Your task to perform on an android device: move an email to a new category in the gmail app Image 0: 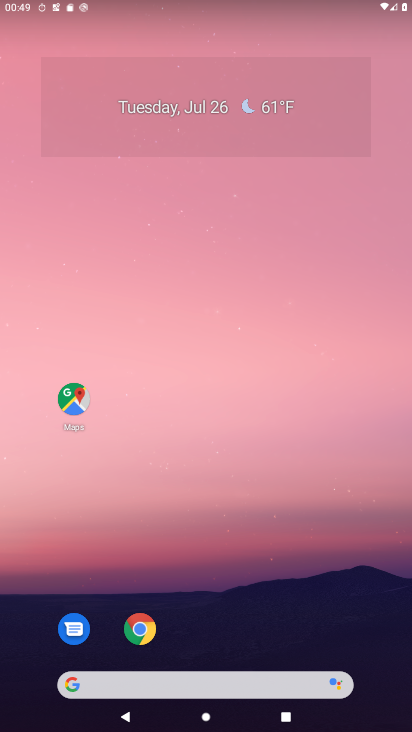
Step 0: drag from (196, 631) to (230, 9)
Your task to perform on an android device: move an email to a new category in the gmail app Image 1: 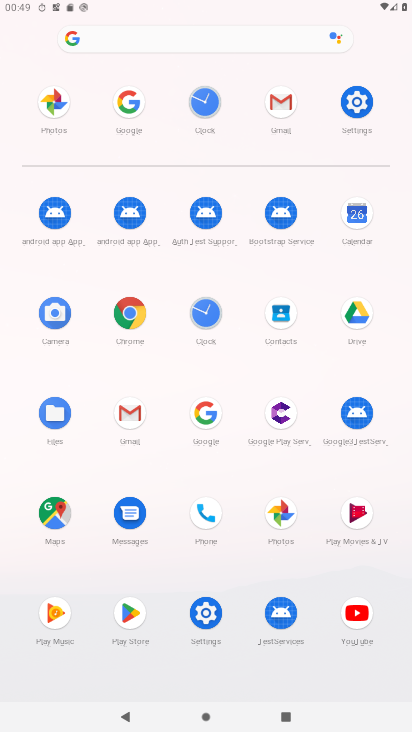
Step 1: click (283, 157)
Your task to perform on an android device: move an email to a new category in the gmail app Image 2: 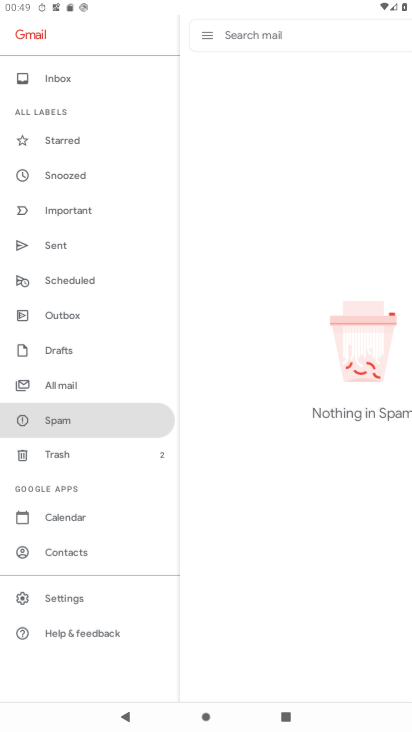
Step 2: click (283, 132)
Your task to perform on an android device: move an email to a new category in the gmail app Image 3: 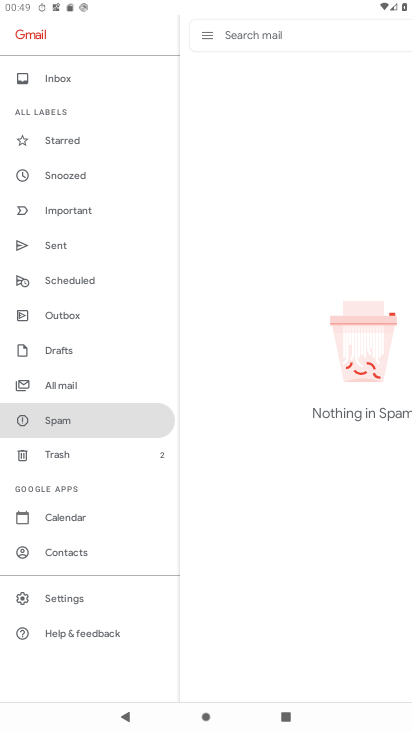
Step 3: click (70, 393)
Your task to perform on an android device: move an email to a new category in the gmail app Image 4: 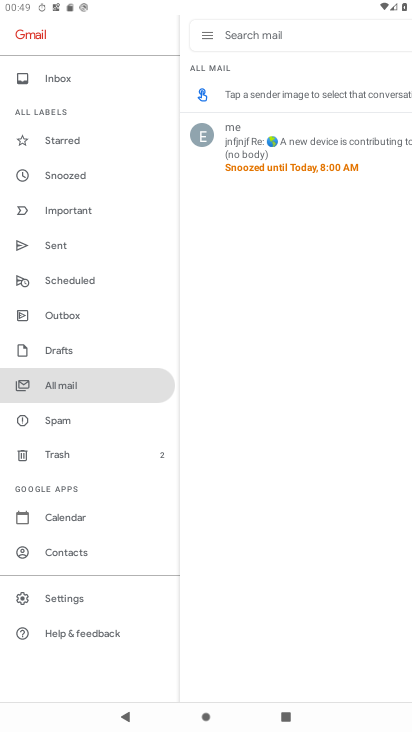
Step 4: click (262, 144)
Your task to perform on an android device: move an email to a new category in the gmail app Image 5: 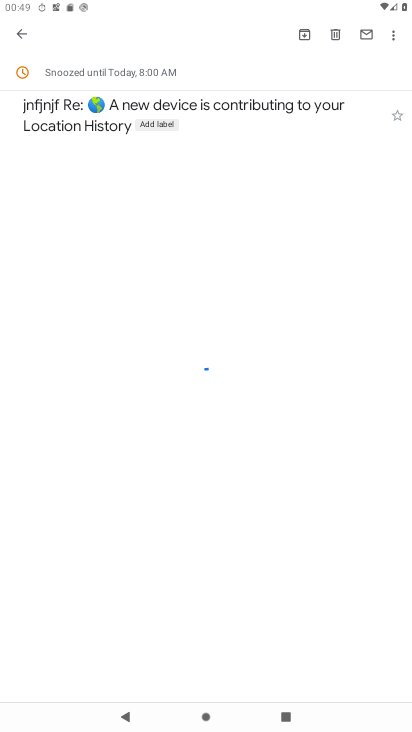
Step 5: click (397, 30)
Your task to perform on an android device: move an email to a new category in the gmail app Image 6: 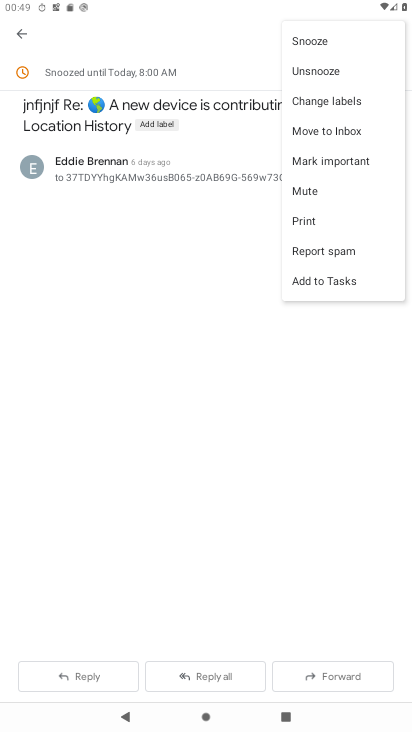
Step 6: click (332, 132)
Your task to perform on an android device: move an email to a new category in the gmail app Image 7: 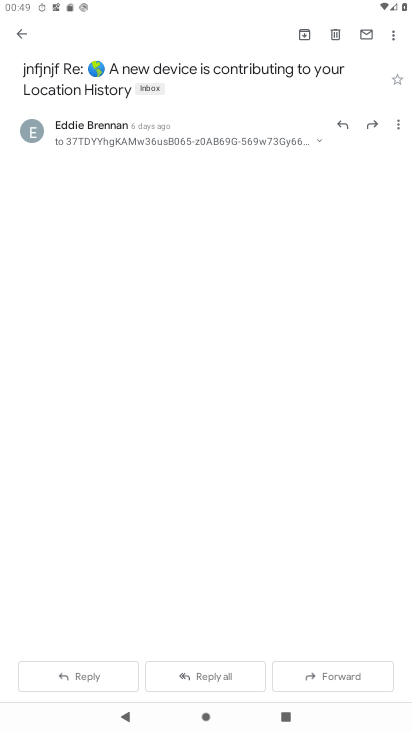
Step 7: task complete